Your task to perform on an android device: install app "Roku - Official Remote Control" Image 0: 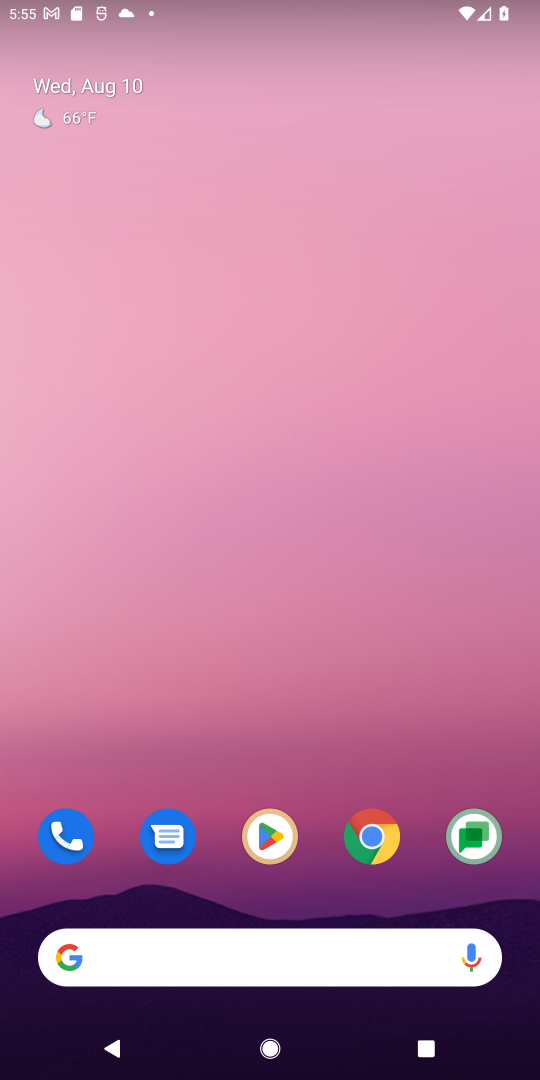
Step 0: drag from (219, 784) to (276, 90)
Your task to perform on an android device: install app "Roku - Official Remote Control" Image 1: 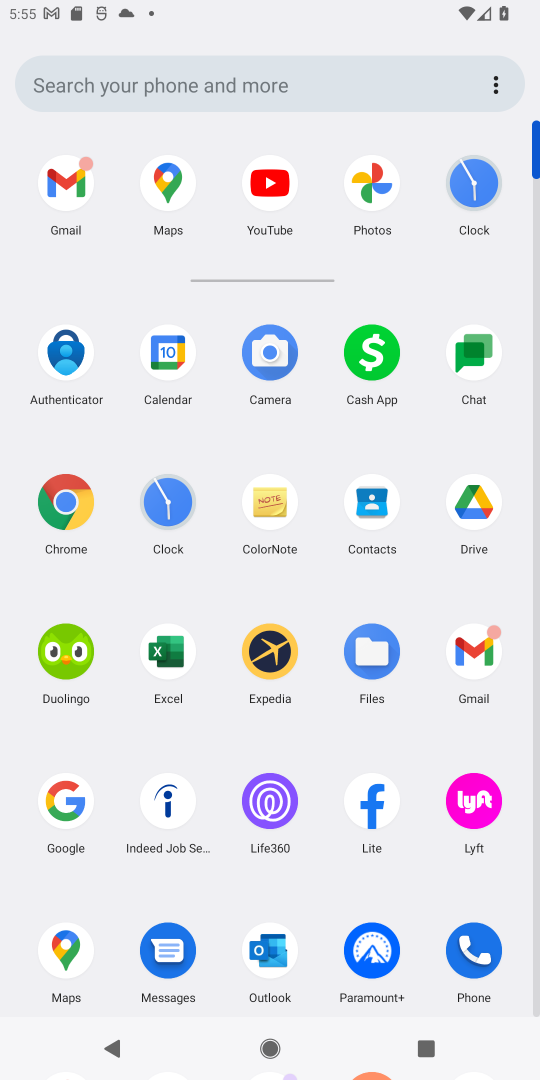
Step 1: drag from (232, 933) to (267, 395)
Your task to perform on an android device: install app "Roku - Official Remote Control" Image 2: 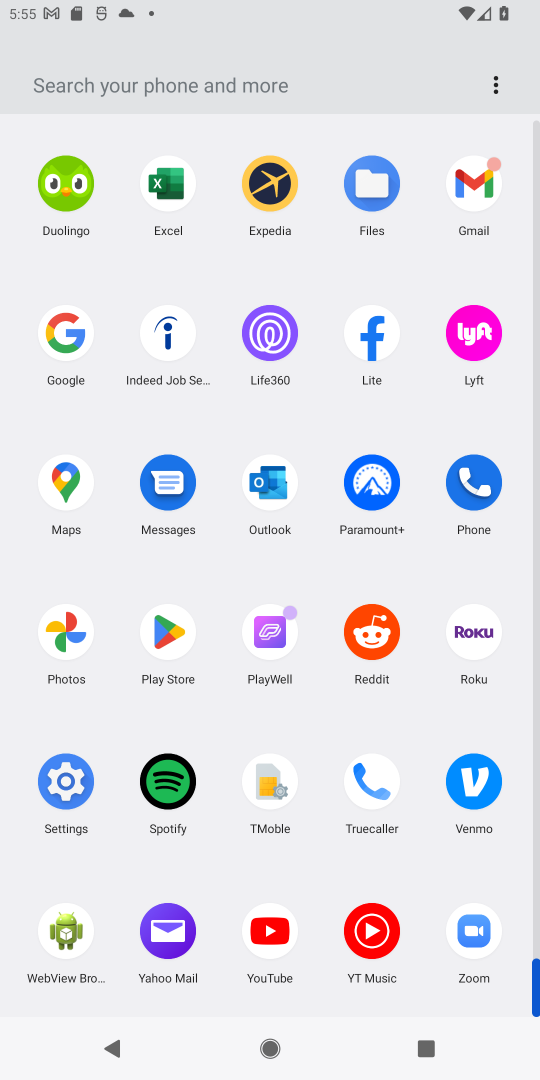
Step 2: drag from (231, 915) to (237, 262)
Your task to perform on an android device: install app "Roku - Official Remote Control" Image 3: 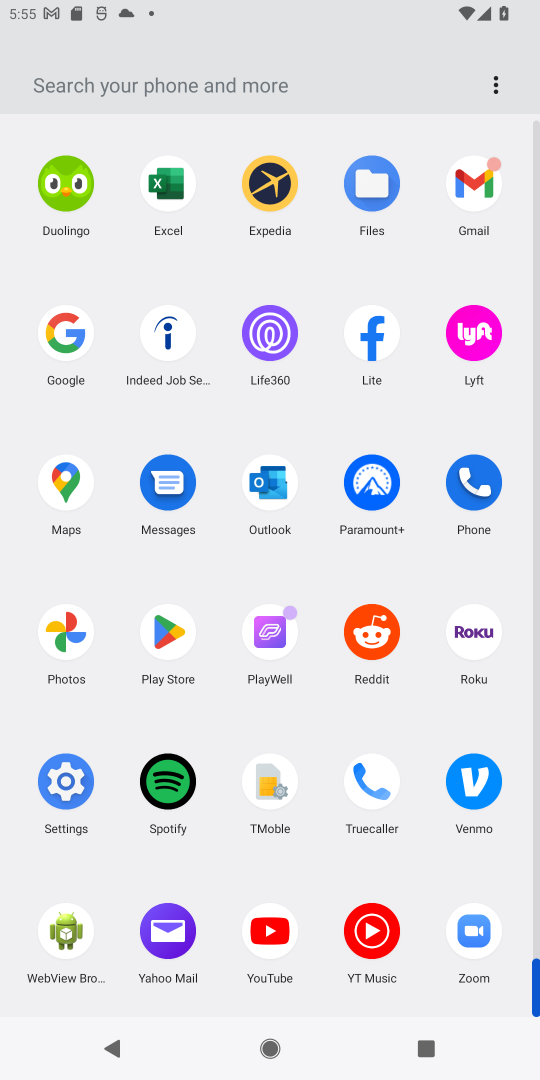
Step 3: click (150, 623)
Your task to perform on an android device: install app "Roku - Official Remote Control" Image 4: 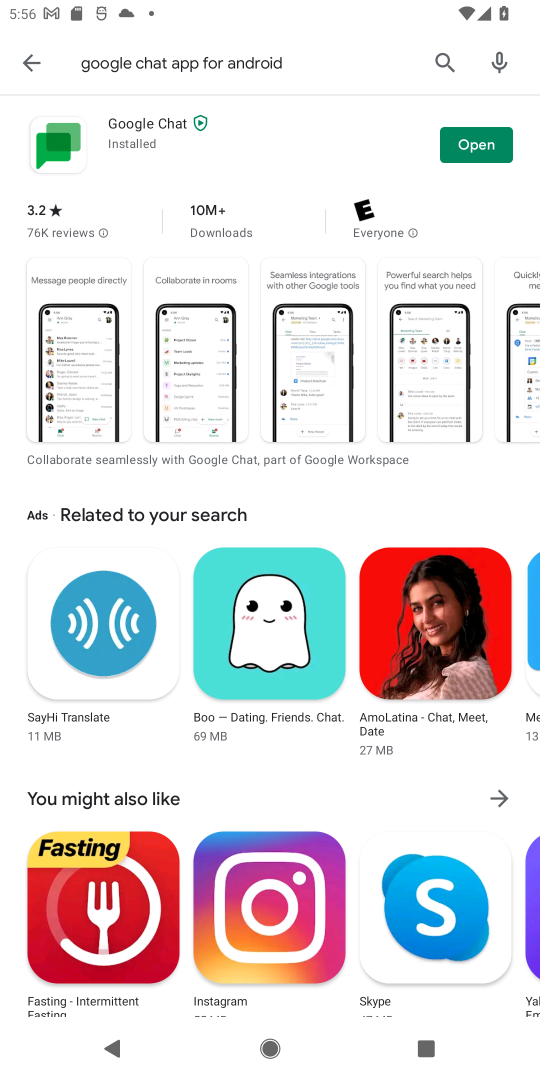
Step 4: click (29, 70)
Your task to perform on an android device: install app "Roku - Official Remote Control" Image 5: 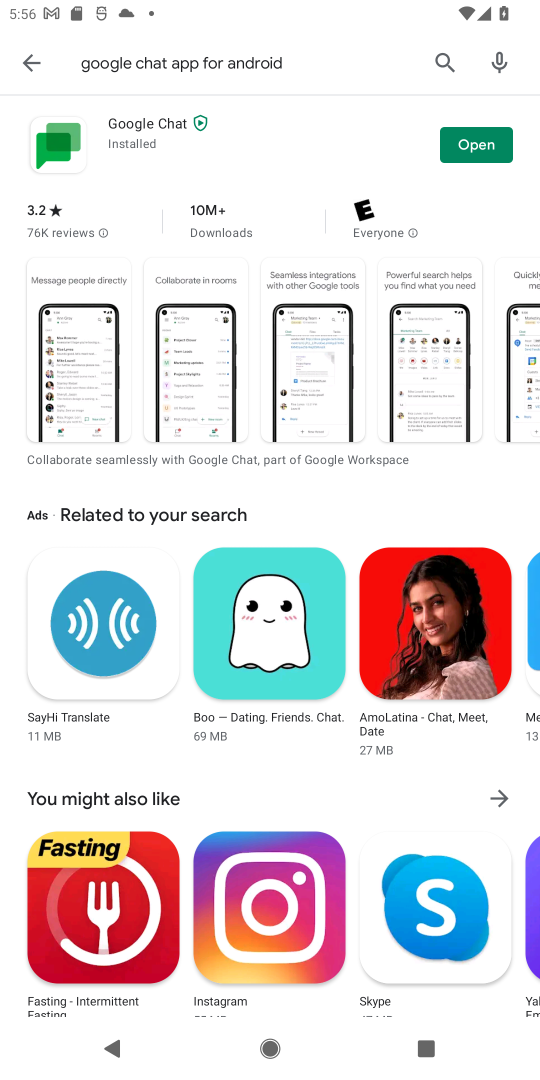
Step 5: click (29, 67)
Your task to perform on an android device: install app "Roku - Official Remote Control" Image 6: 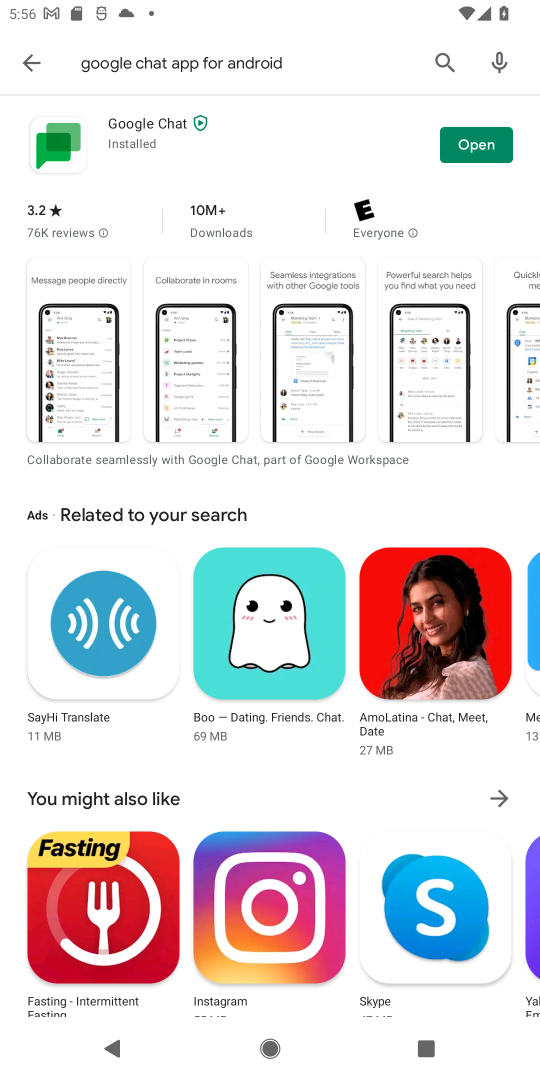
Step 6: click (29, 67)
Your task to perform on an android device: install app "Roku - Official Remote Control" Image 7: 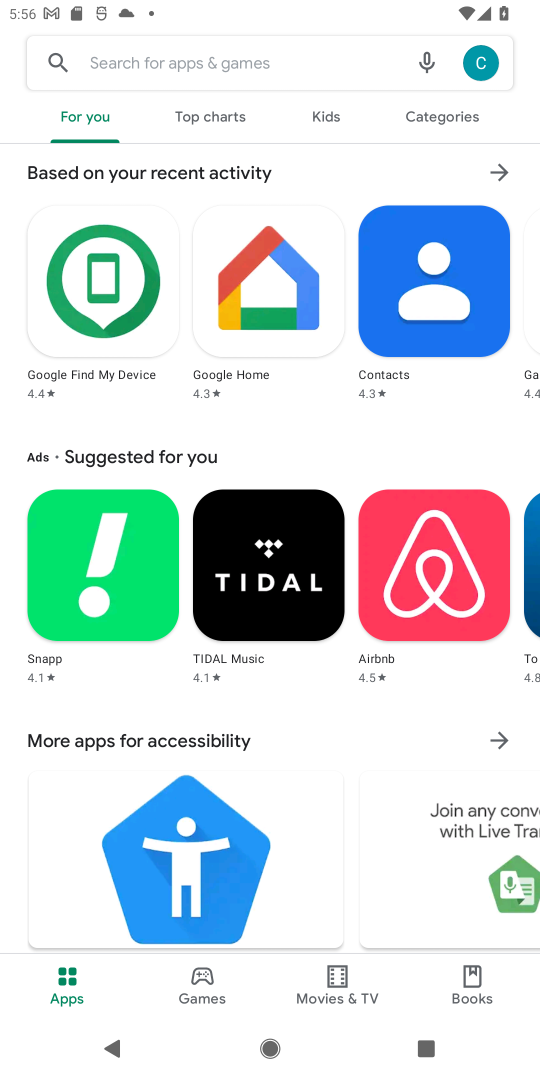
Step 7: click (88, 61)
Your task to perform on an android device: install app "Roku - Official Remote Control" Image 8: 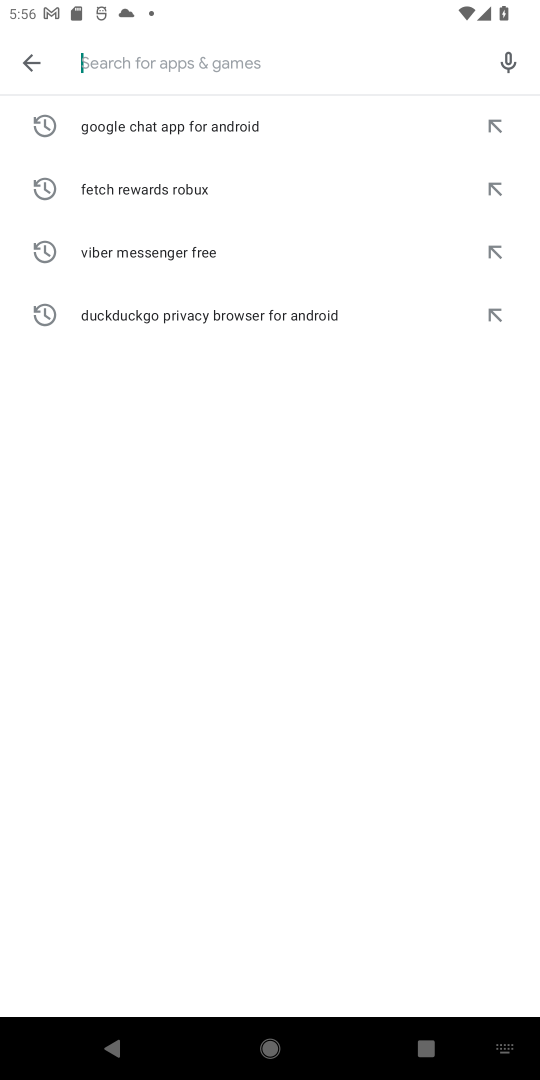
Step 8: type "roku "
Your task to perform on an android device: install app "Roku - Official Remote Control" Image 9: 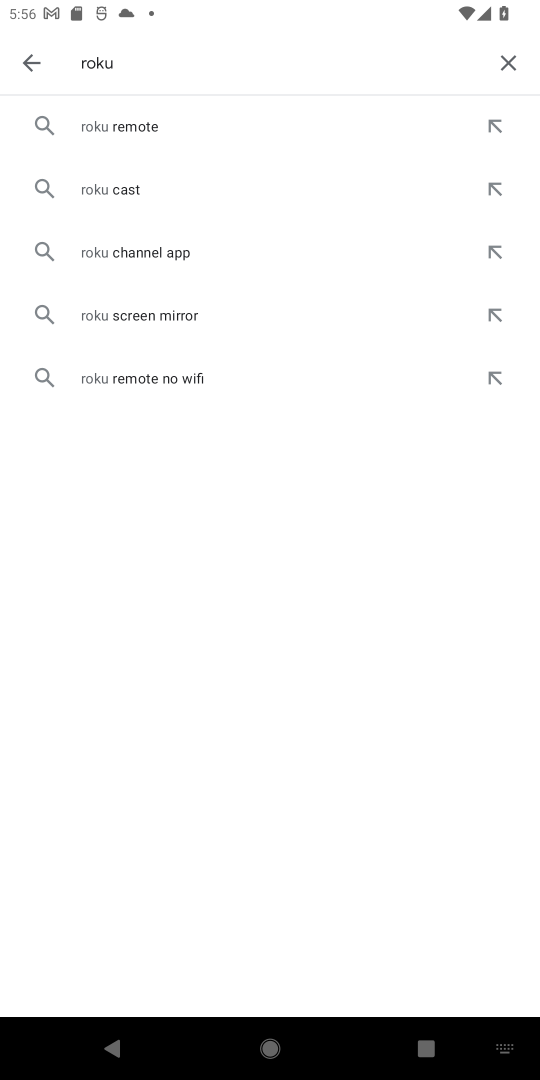
Step 9: click (145, 130)
Your task to perform on an android device: install app "Roku - Official Remote Control" Image 10: 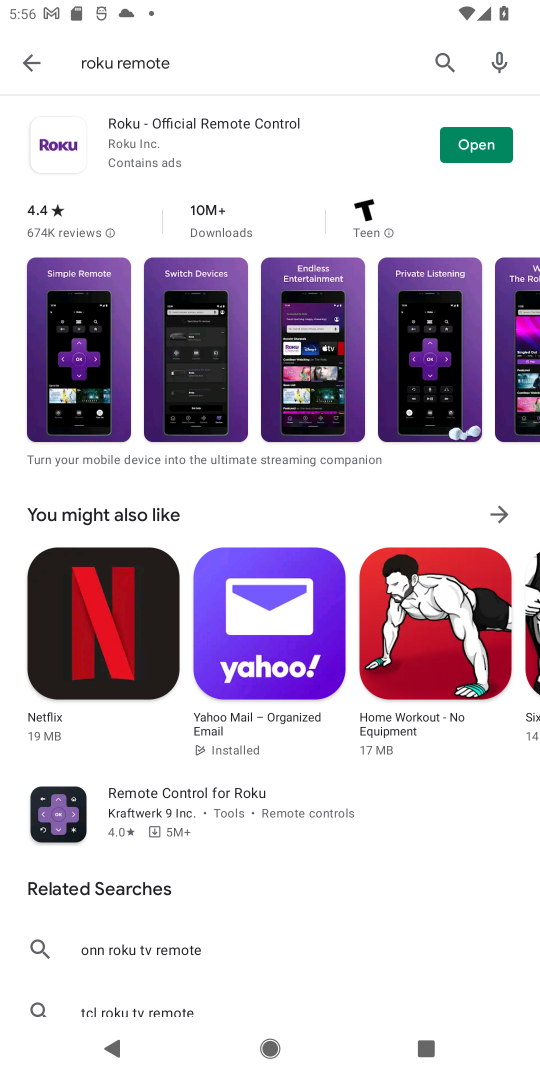
Step 10: click (473, 145)
Your task to perform on an android device: install app "Roku - Official Remote Control" Image 11: 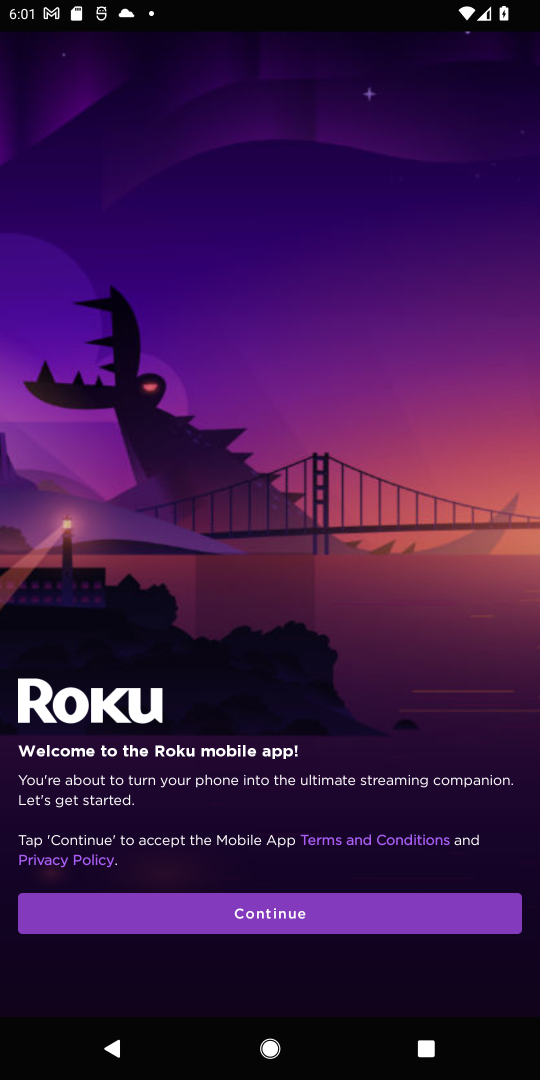
Step 11: task complete